Your task to perform on an android device: star an email in the gmail app Image 0: 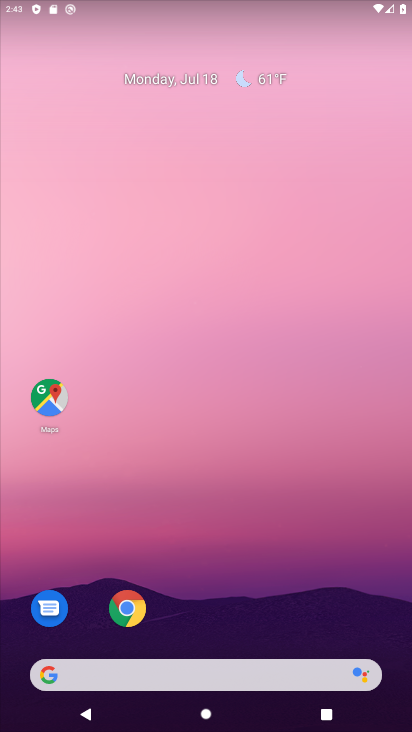
Step 0: drag from (276, 602) to (311, 13)
Your task to perform on an android device: star an email in the gmail app Image 1: 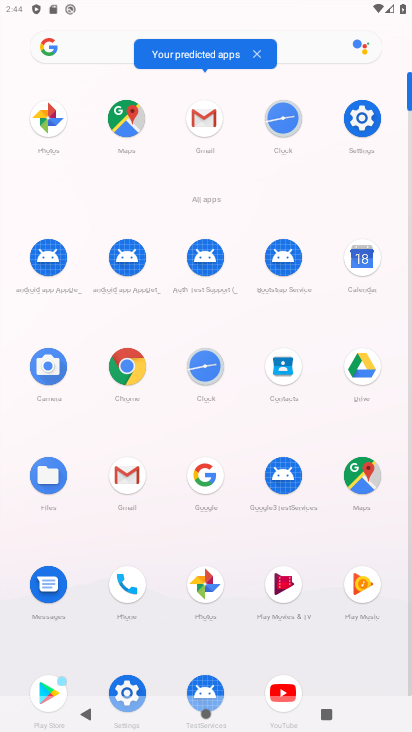
Step 1: click (134, 469)
Your task to perform on an android device: star an email in the gmail app Image 2: 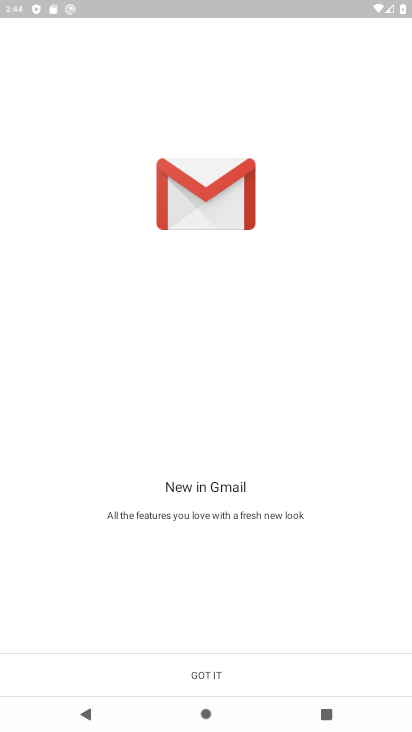
Step 2: click (221, 670)
Your task to perform on an android device: star an email in the gmail app Image 3: 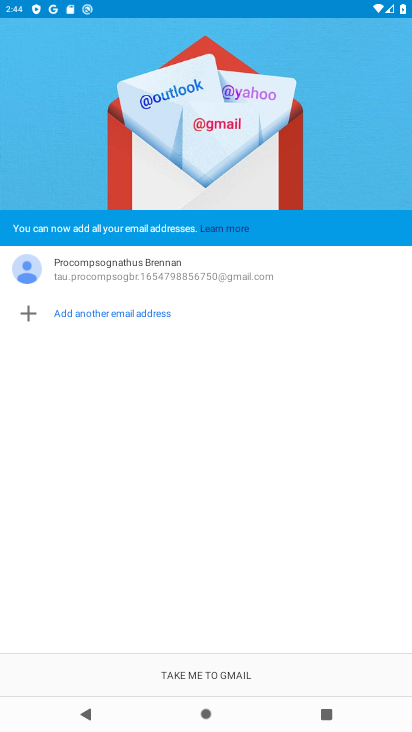
Step 3: click (221, 670)
Your task to perform on an android device: star an email in the gmail app Image 4: 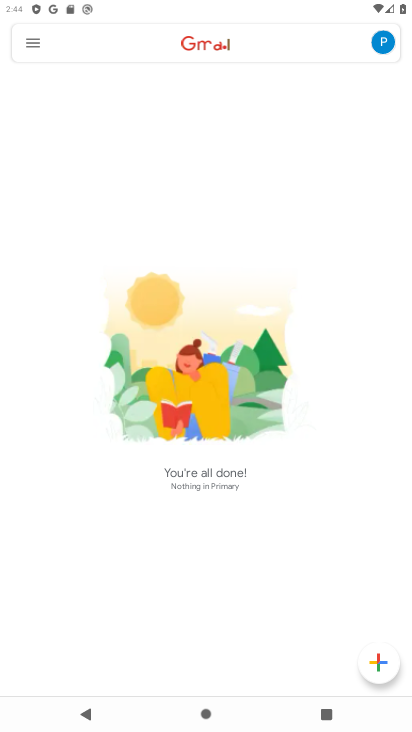
Step 4: click (23, 40)
Your task to perform on an android device: star an email in the gmail app Image 5: 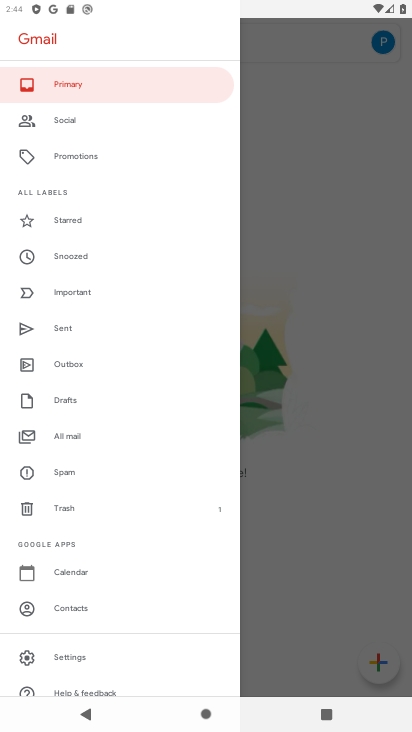
Step 5: click (75, 435)
Your task to perform on an android device: star an email in the gmail app Image 6: 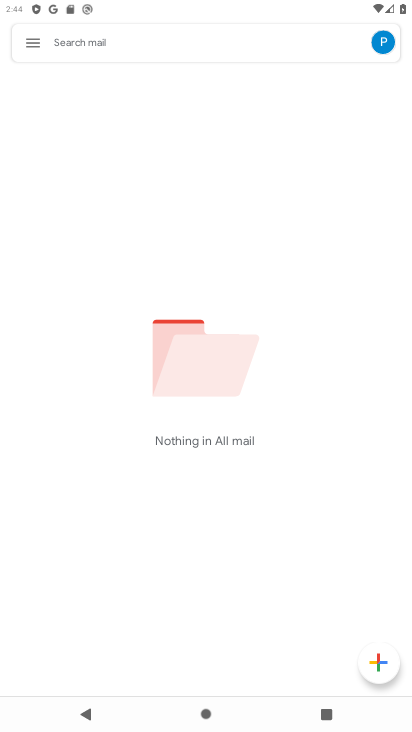
Step 6: task complete